Your task to perform on an android device: turn on the 24-hour format for clock Image 0: 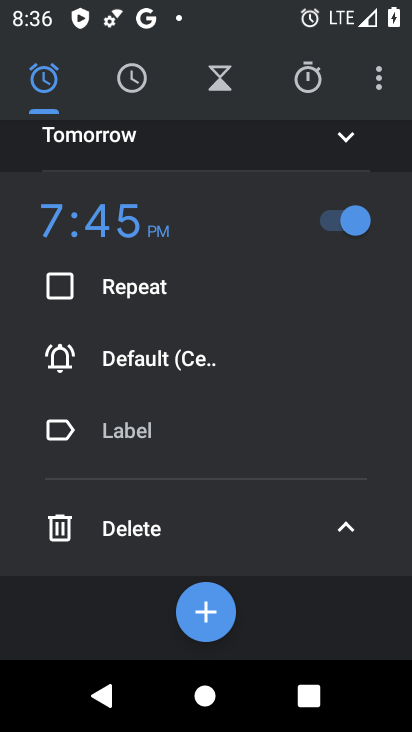
Step 0: press home button
Your task to perform on an android device: turn on the 24-hour format for clock Image 1: 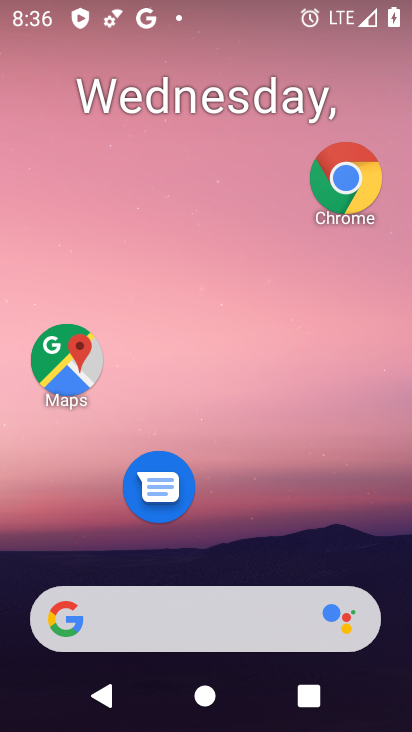
Step 1: drag from (302, 638) to (338, 130)
Your task to perform on an android device: turn on the 24-hour format for clock Image 2: 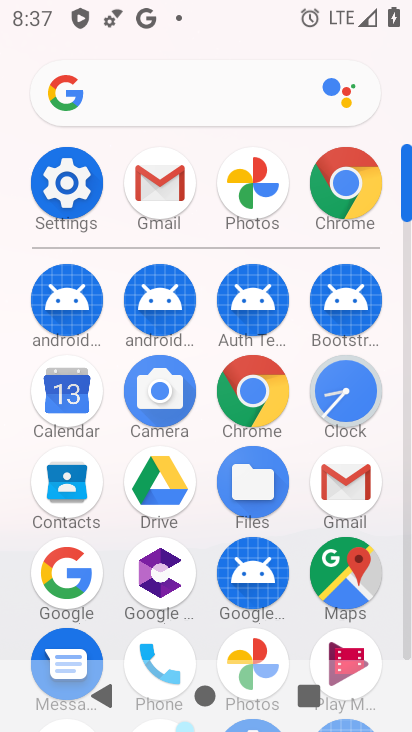
Step 2: drag from (248, 523) to (281, 265)
Your task to perform on an android device: turn on the 24-hour format for clock Image 3: 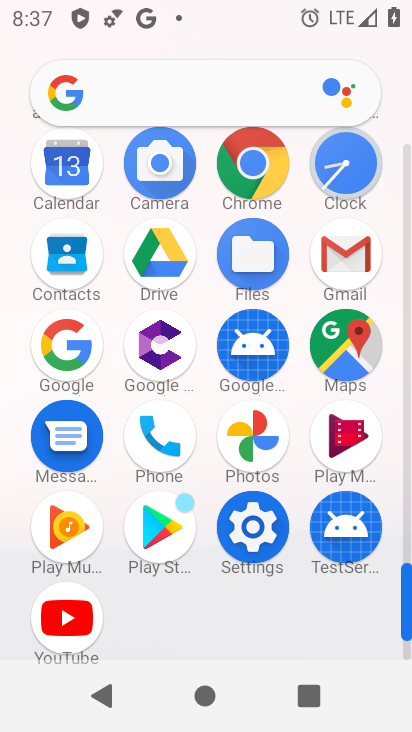
Step 3: click (353, 173)
Your task to perform on an android device: turn on the 24-hour format for clock Image 4: 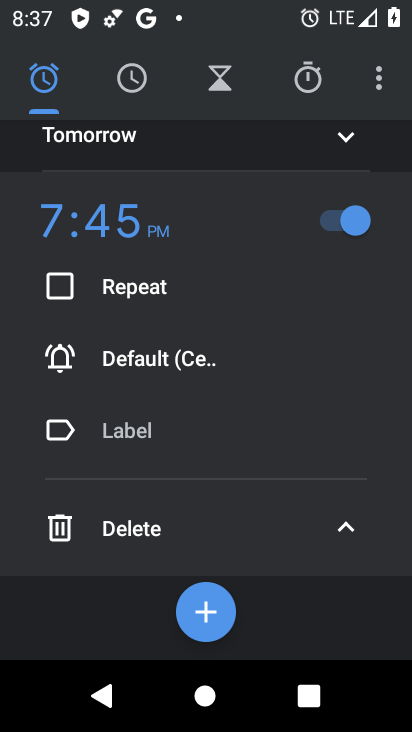
Step 4: click (382, 89)
Your task to perform on an android device: turn on the 24-hour format for clock Image 5: 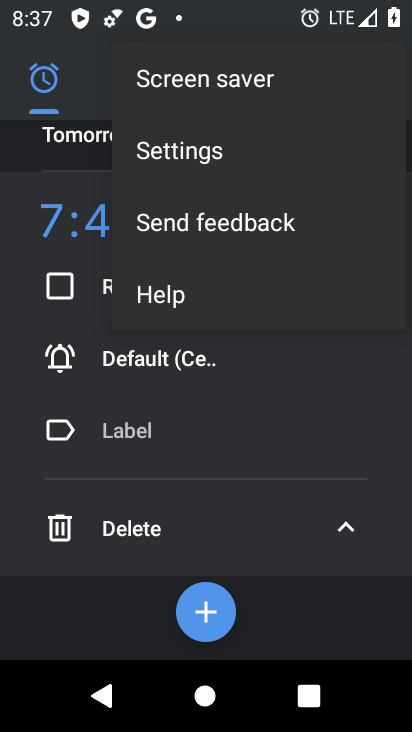
Step 5: click (218, 155)
Your task to perform on an android device: turn on the 24-hour format for clock Image 6: 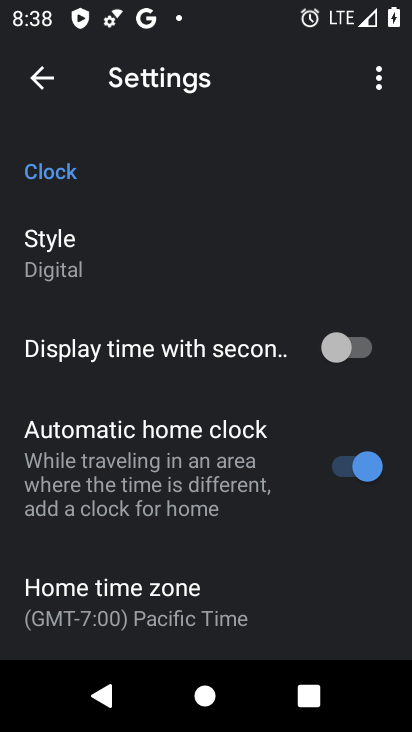
Step 6: drag from (122, 582) to (176, 216)
Your task to perform on an android device: turn on the 24-hour format for clock Image 7: 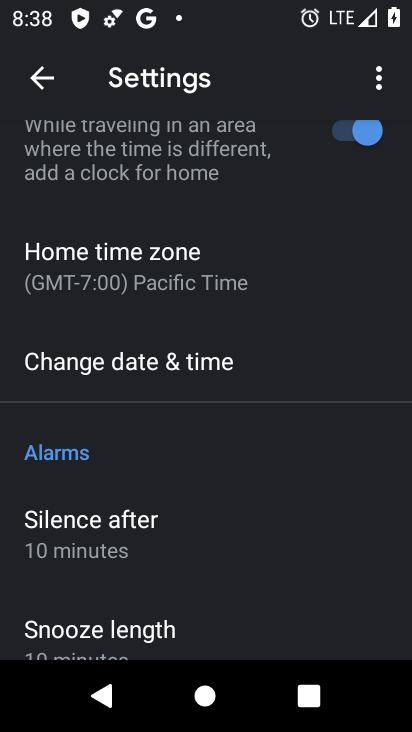
Step 7: click (143, 361)
Your task to perform on an android device: turn on the 24-hour format for clock Image 8: 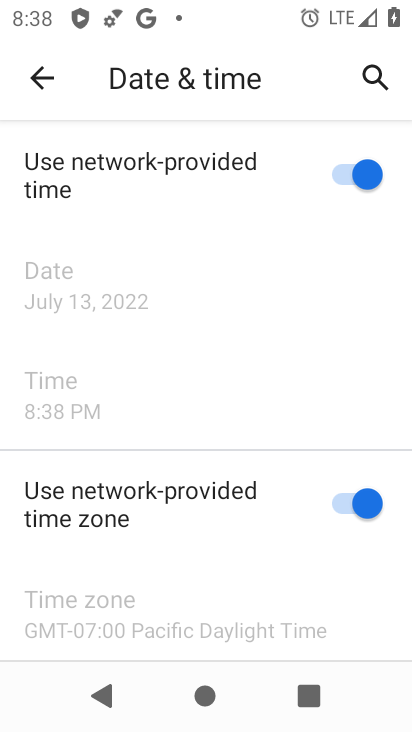
Step 8: task complete